Your task to perform on an android device: Go to Wikipedia Image 0: 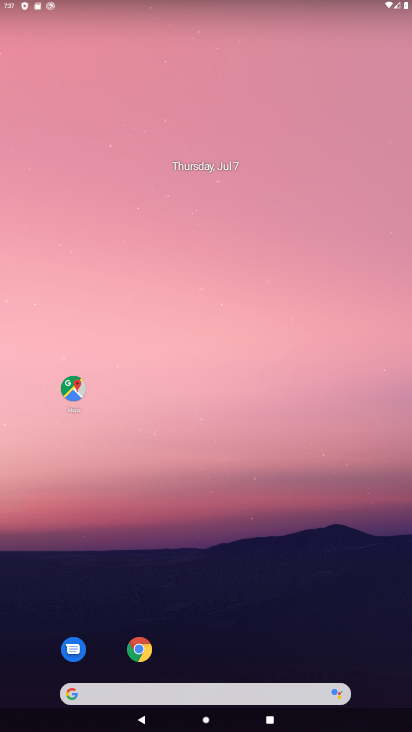
Step 0: press home button
Your task to perform on an android device: Go to Wikipedia Image 1: 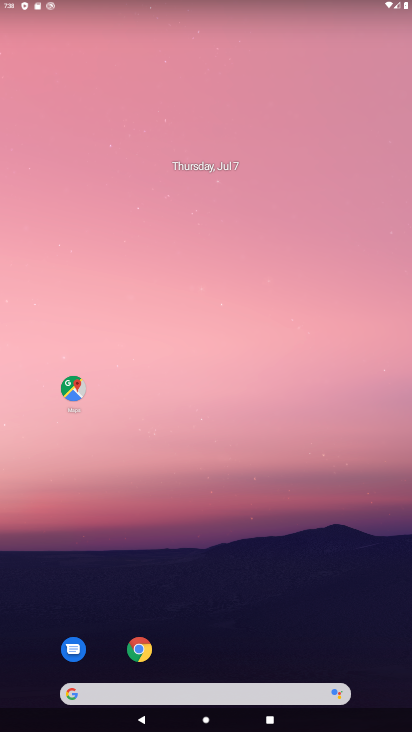
Step 1: click (135, 644)
Your task to perform on an android device: Go to Wikipedia Image 2: 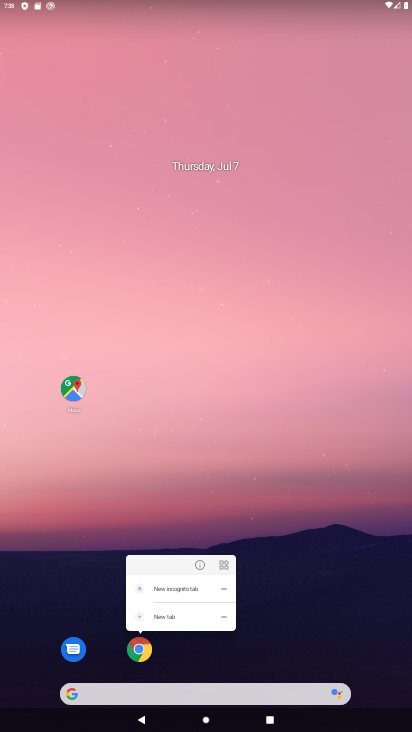
Step 2: click (136, 646)
Your task to perform on an android device: Go to Wikipedia Image 3: 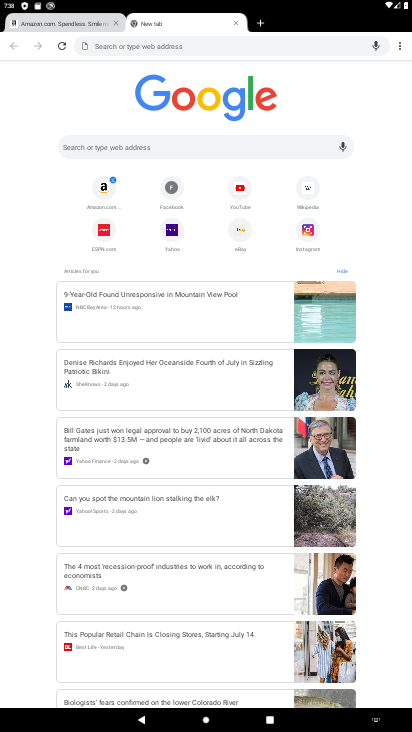
Step 3: click (306, 185)
Your task to perform on an android device: Go to Wikipedia Image 4: 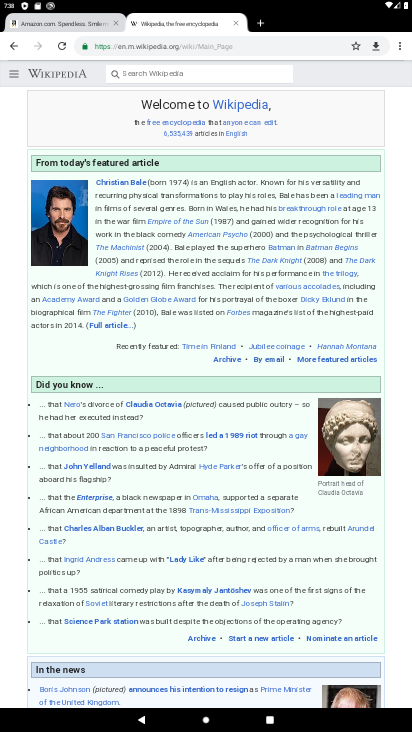
Step 4: task complete